Your task to perform on an android device: Search for seafood restaurants on Google Maps Image 0: 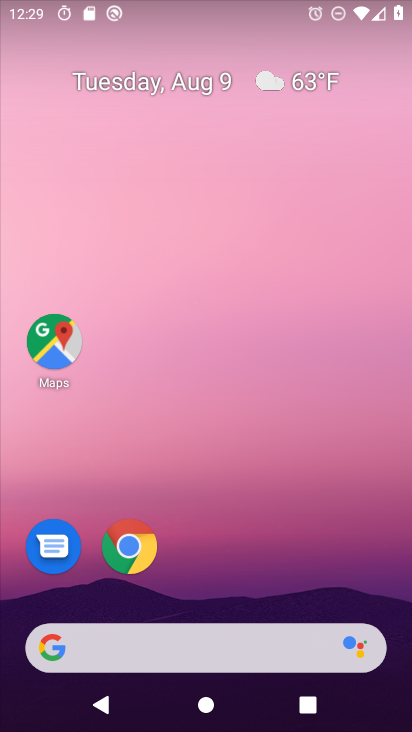
Step 0: press home button
Your task to perform on an android device: Search for seafood restaurants on Google Maps Image 1: 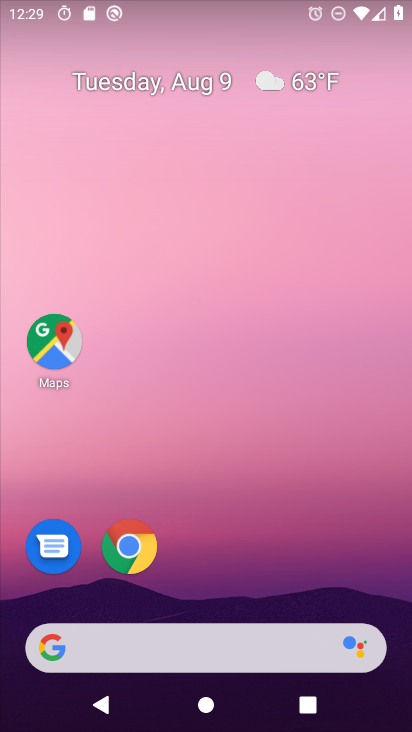
Step 1: click (51, 335)
Your task to perform on an android device: Search for seafood restaurants on Google Maps Image 2: 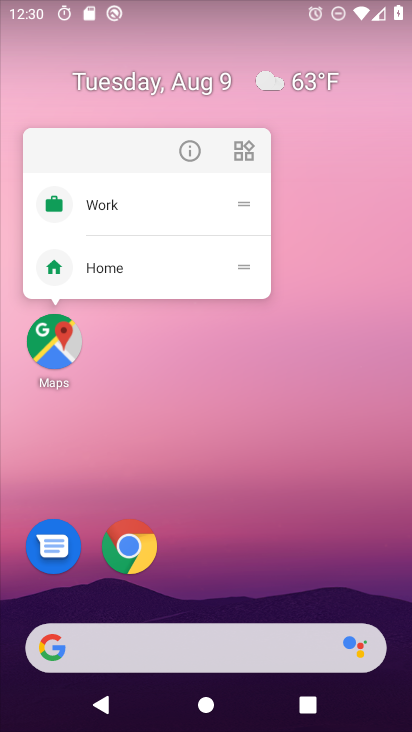
Step 2: click (222, 569)
Your task to perform on an android device: Search for seafood restaurants on Google Maps Image 3: 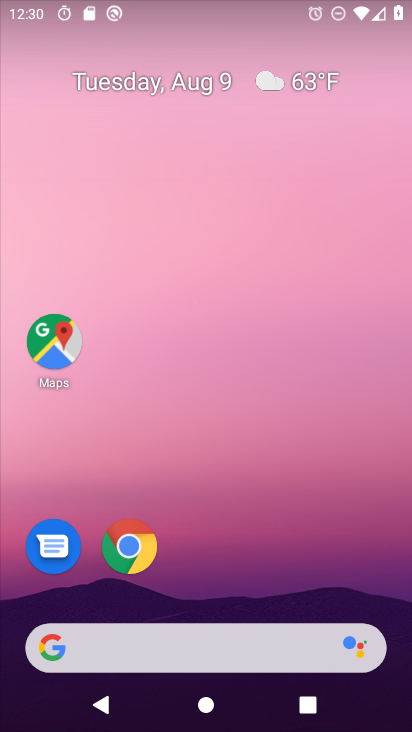
Step 3: drag from (222, 594) to (243, 24)
Your task to perform on an android device: Search for seafood restaurants on Google Maps Image 4: 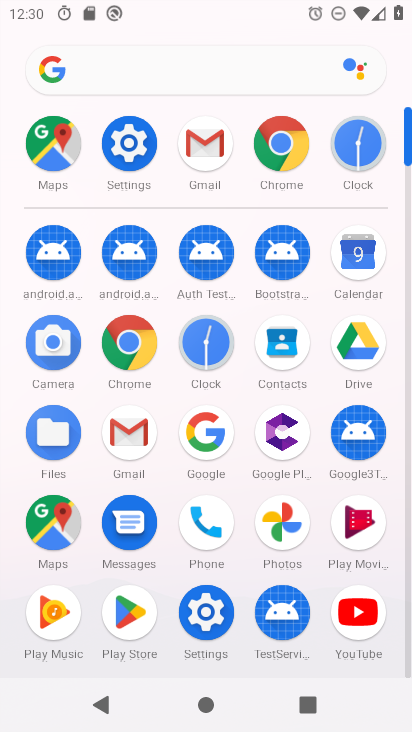
Step 4: click (51, 513)
Your task to perform on an android device: Search for seafood restaurants on Google Maps Image 5: 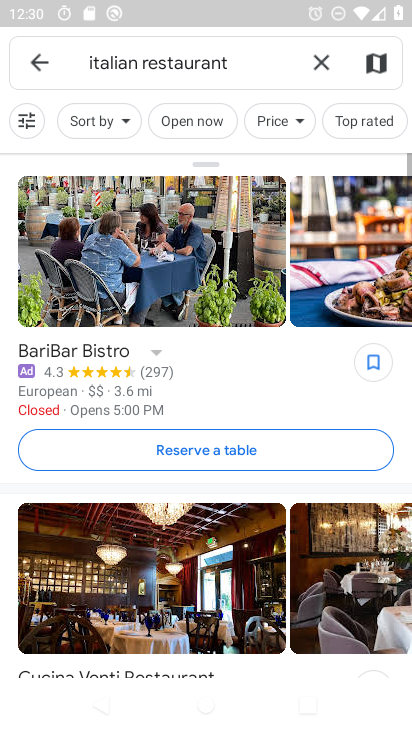
Step 5: click (320, 63)
Your task to perform on an android device: Search for seafood restaurants on Google Maps Image 6: 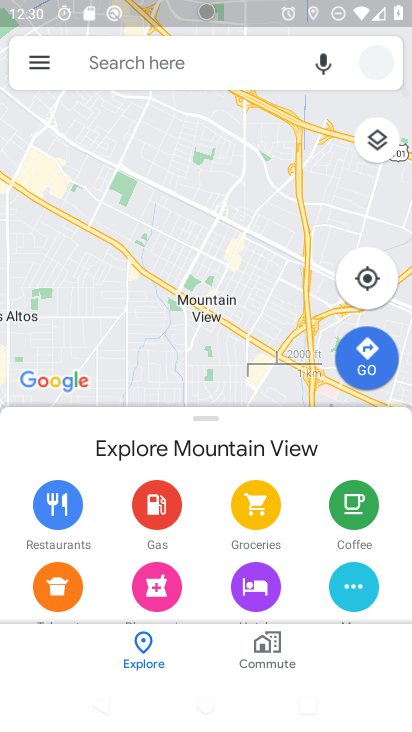
Step 6: click (142, 57)
Your task to perform on an android device: Search for seafood restaurants on Google Maps Image 7: 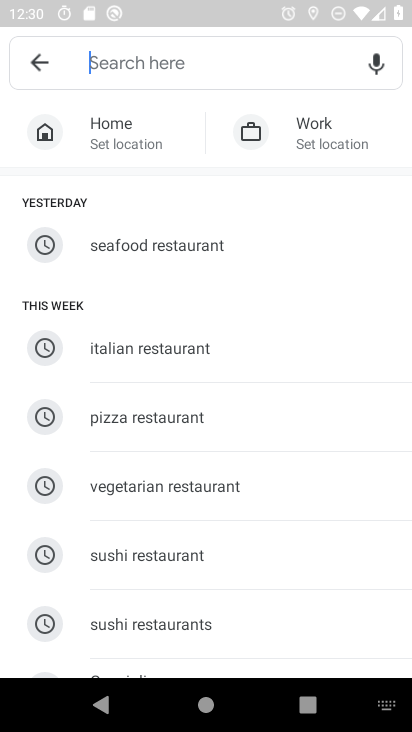
Step 7: type "seafood"
Your task to perform on an android device: Search for seafood restaurants on Google Maps Image 8: 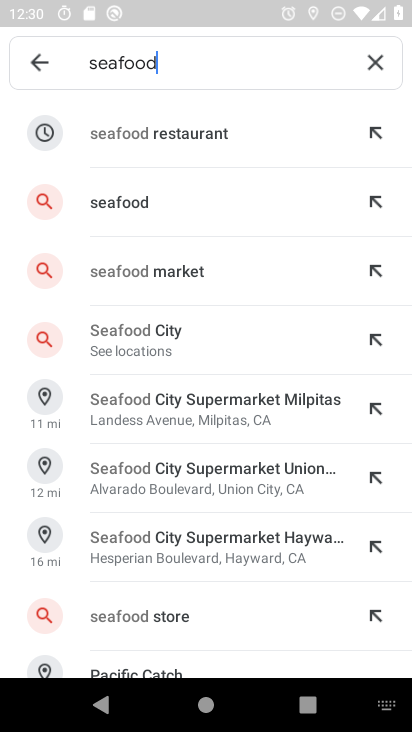
Step 8: click (154, 143)
Your task to perform on an android device: Search for seafood restaurants on Google Maps Image 9: 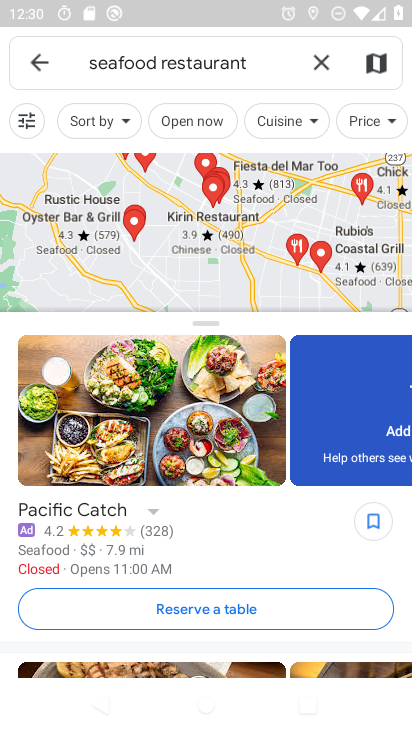
Step 9: task complete